Your task to perform on an android device: turn off airplane mode Image 0: 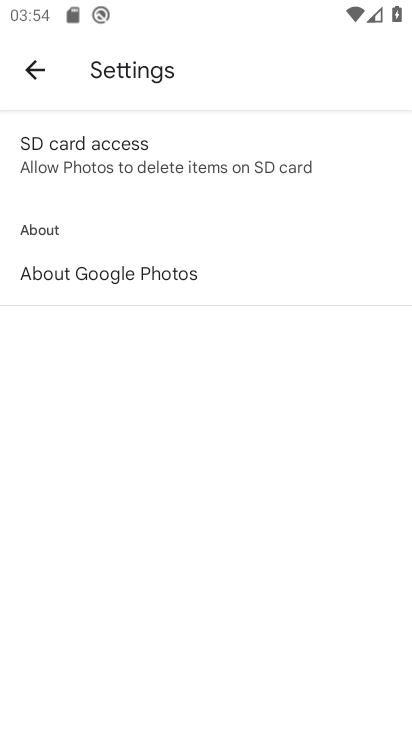
Step 0: press home button
Your task to perform on an android device: turn off airplane mode Image 1: 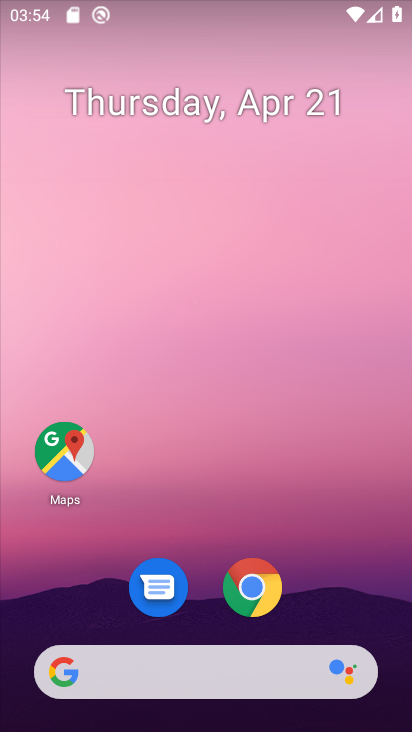
Step 1: drag from (332, 593) to (337, 172)
Your task to perform on an android device: turn off airplane mode Image 2: 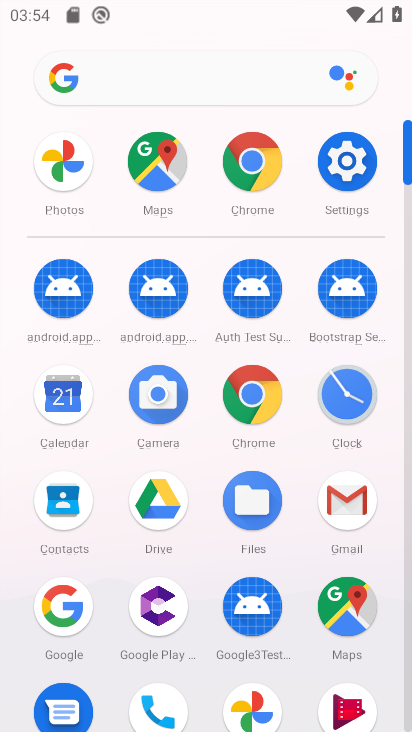
Step 2: click (351, 170)
Your task to perform on an android device: turn off airplane mode Image 3: 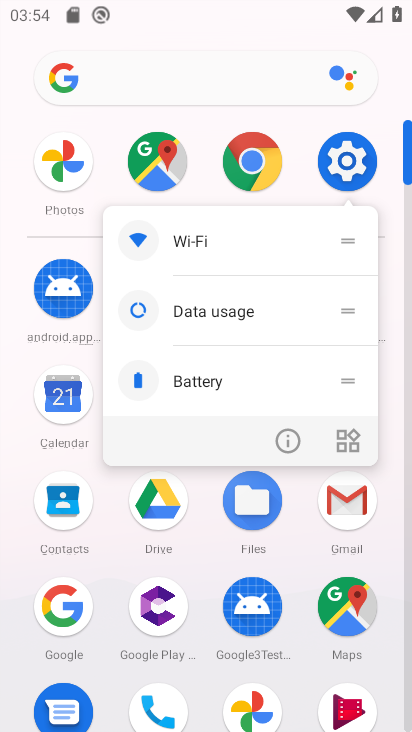
Step 3: click (351, 170)
Your task to perform on an android device: turn off airplane mode Image 4: 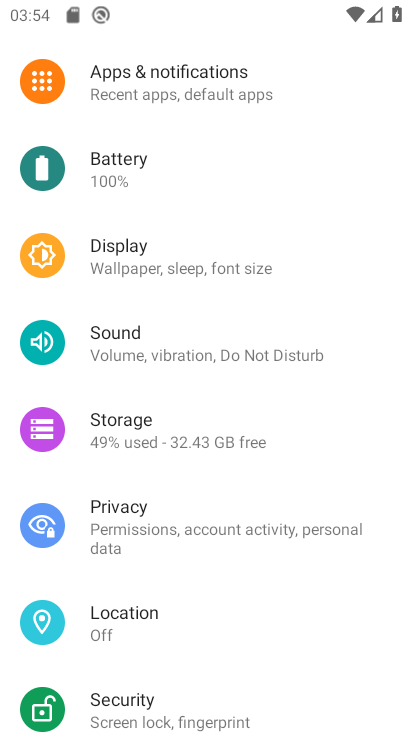
Step 4: drag from (351, 623) to (363, 482)
Your task to perform on an android device: turn off airplane mode Image 5: 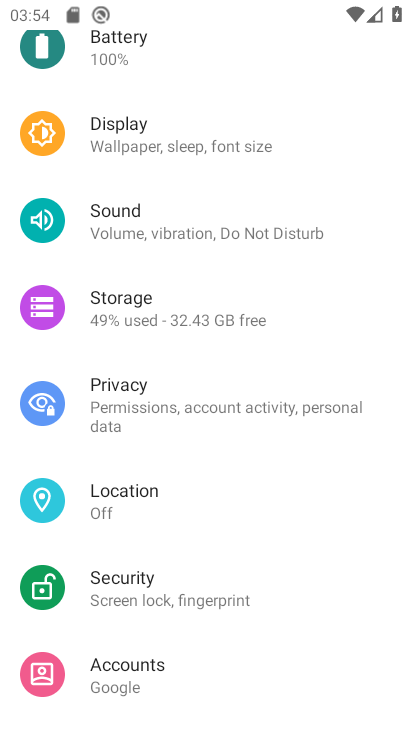
Step 5: drag from (344, 626) to (341, 449)
Your task to perform on an android device: turn off airplane mode Image 6: 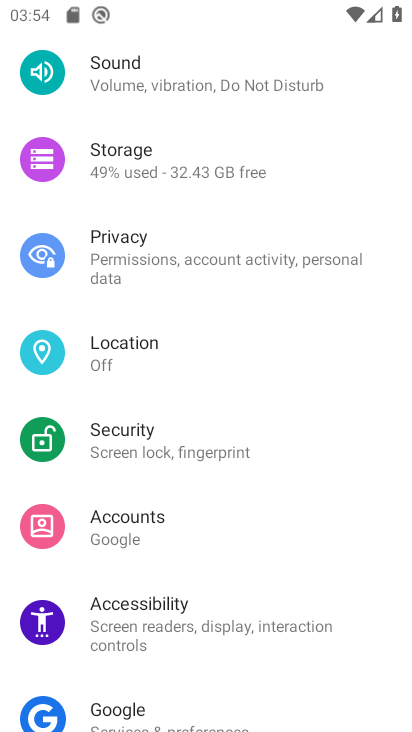
Step 6: drag from (355, 643) to (365, 382)
Your task to perform on an android device: turn off airplane mode Image 7: 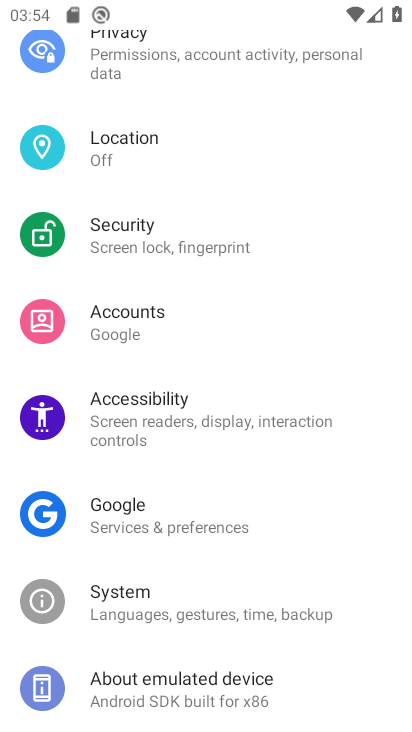
Step 7: drag from (372, 345) to (363, 468)
Your task to perform on an android device: turn off airplane mode Image 8: 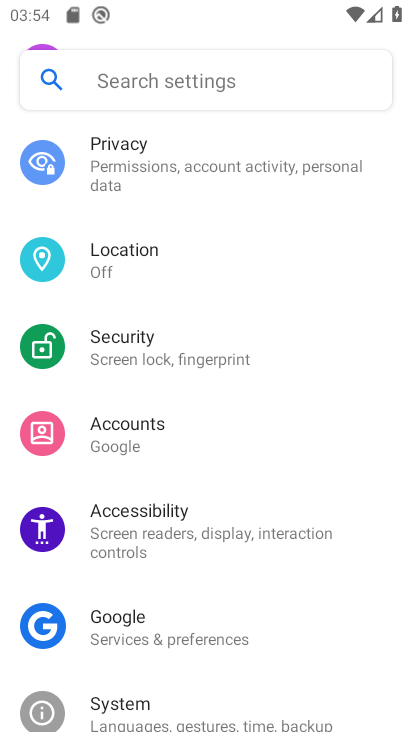
Step 8: drag from (369, 368) to (363, 485)
Your task to perform on an android device: turn off airplane mode Image 9: 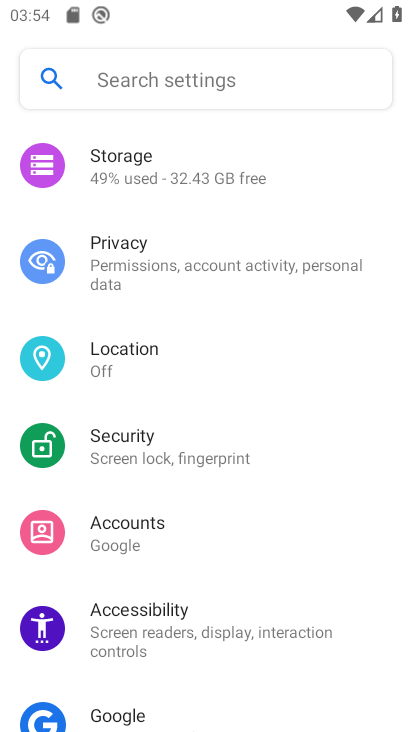
Step 9: drag from (366, 344) to (361, 446)
Your task to perform on an android device: turn off airplane mode Image 10: 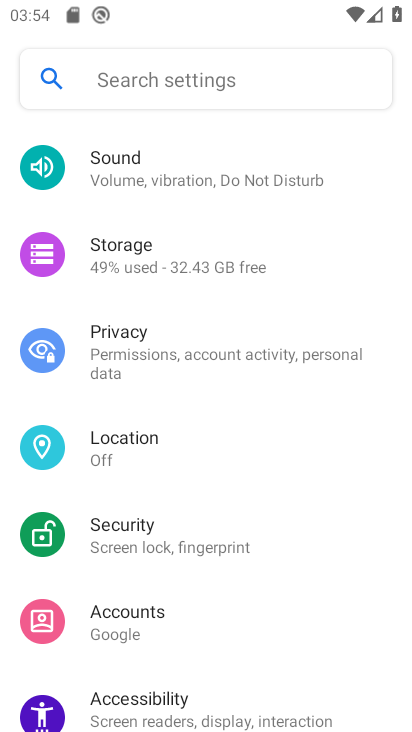
Step 10: drag from (380, 312) to (379, 434)
Your task to perform on an android device: turn off airplane mode Image 11: 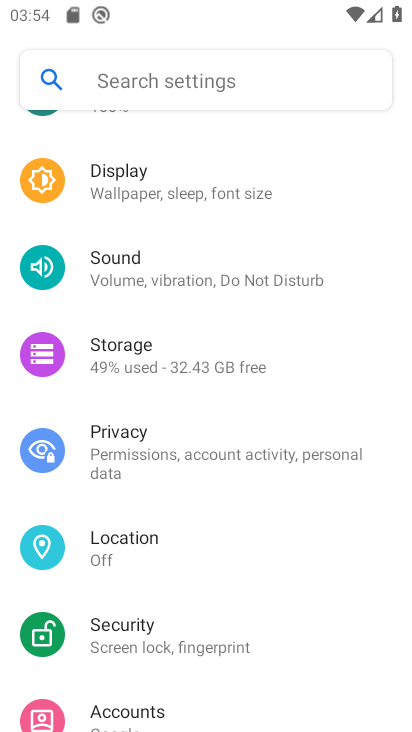
Step 11: drag from (369, 321) to (371, 475)
Your task to perform on an android device: turn off airplane mode Image 12: 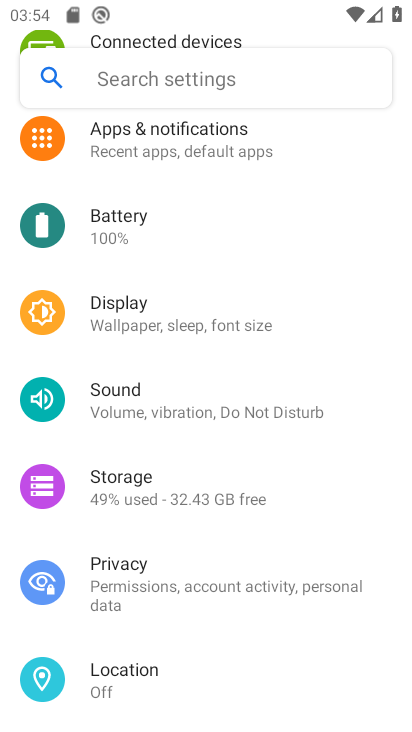
Step 12: drag from (369, 317) to (372, 426)
Your task to perform on an android device: turn off airplane mode Image 13: 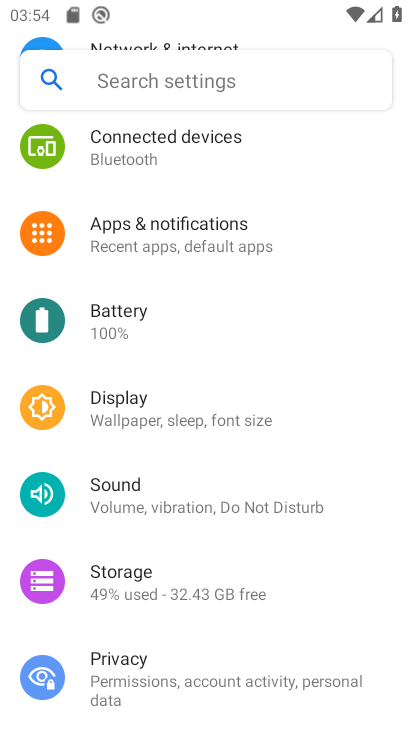
Step 13: drag from (373, 276) to (360, 435)
Your task to perform on an android device: turn off airplane mode Image 14: 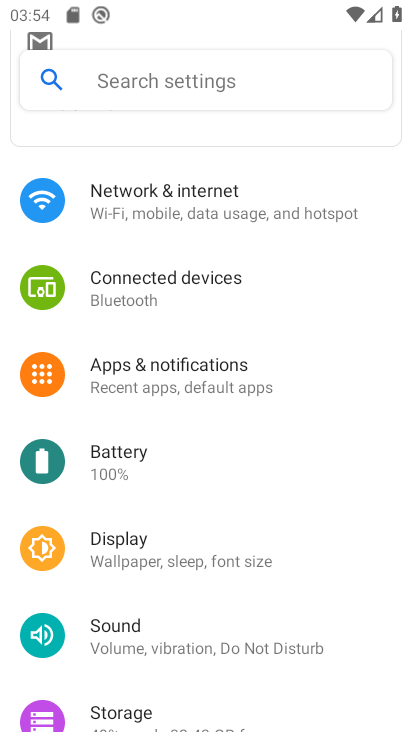
Step 14: drag from (338, 275) to (340, 425)
Your task to perform on an android device: turn off airplane mode Image 15: 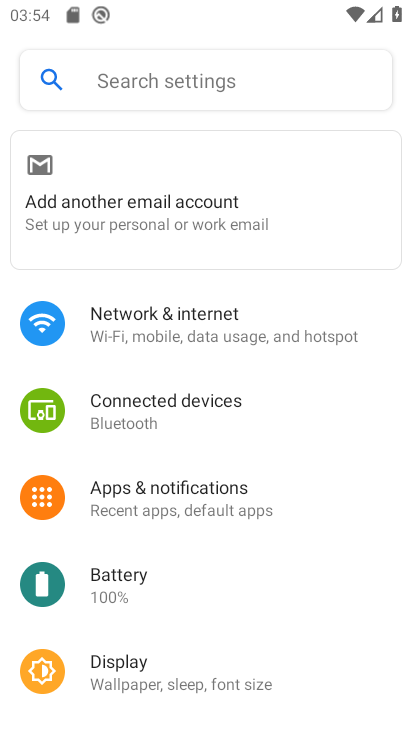
Step 15: click (303, 335)
Your task to perform on an android device: turn off airplane mode Image 16: 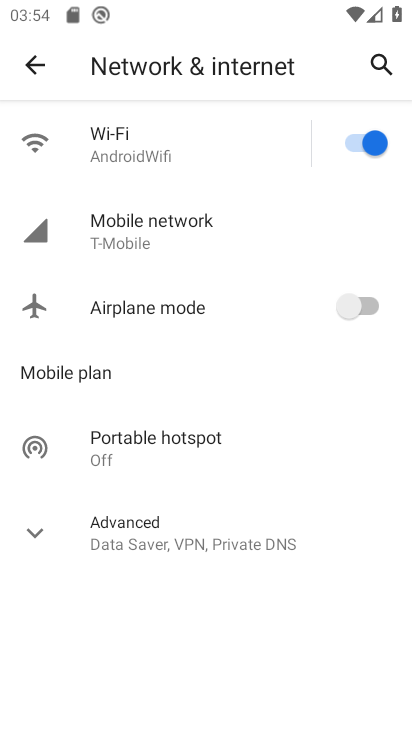
Step 16: task complete